Your task to perform on an android device: Do I have any events tomorrow? Image 0: 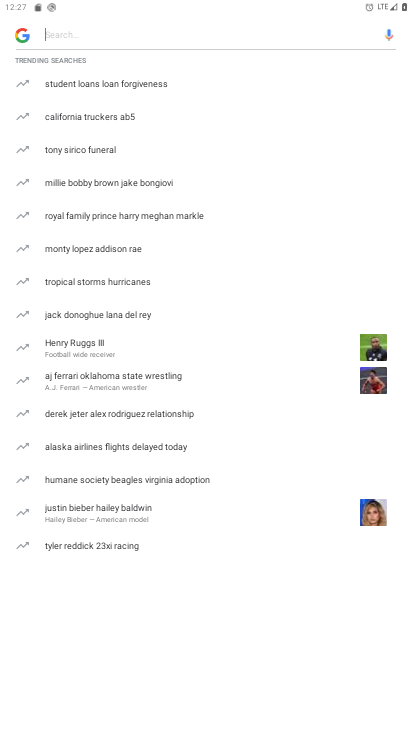
Step 0: press home button
Your task to perform on an android device: Do I have any events tomorrow? Image 1: 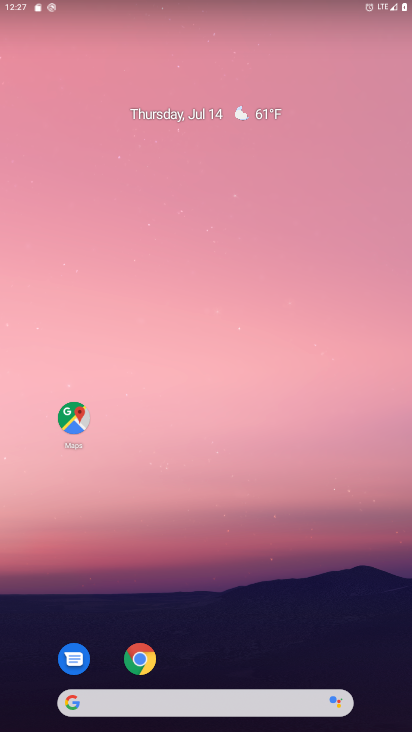
Step 1: drag from (215, 672) to (218, 95)
Your task to perform on an android device: Do I have any events tomorrow? Image 2: 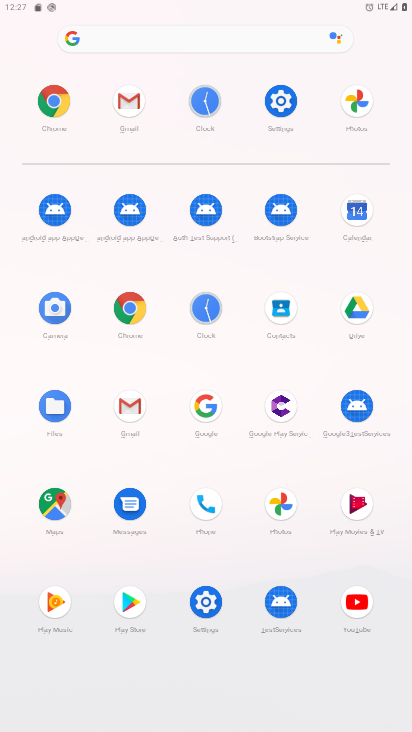
Step 2: click (357, 215)
Your task to perform on an android device: Do I have any events tomorrow? Image 3: 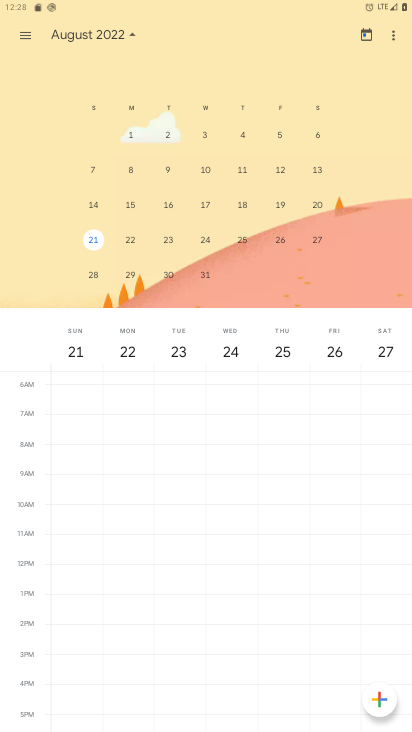
Step 3: click (124, 27)
Your task to perform on an android device: Do I have any events tomorrow? Image 4: 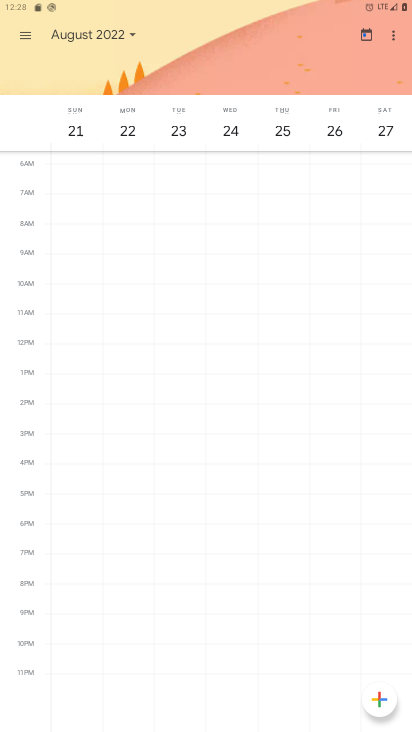
Step 4: click (131, 26)
Your task to perform on an android device: Do I have any events tomorrow? Image 5: 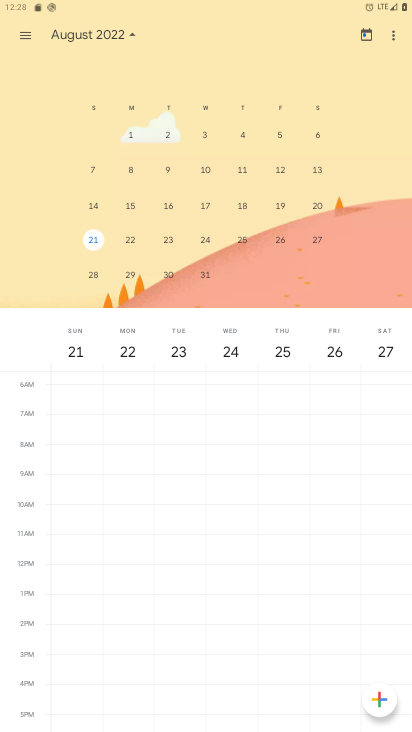
Step 5: drag from (108, 201) to (335, 203)
Your task to perform on an android device: Do I have any events tomorrow? Image 6: 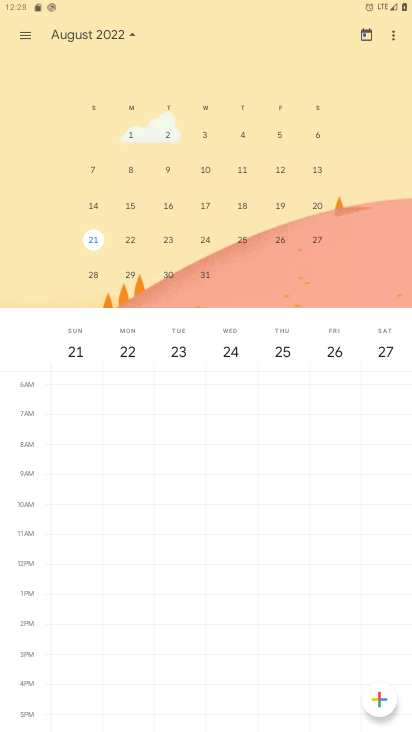
Step 6: drag from (102, 199) to (410, 238)
Your task to perform on an android device: Do I have any events tomorrow? Image 7: 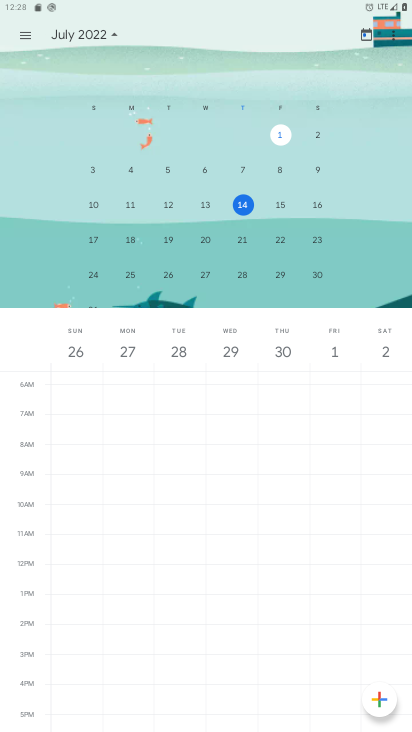
Step 7: click (279, 199)
Your task to perform on an android device: Do I have any events tomorrow? Image 8: 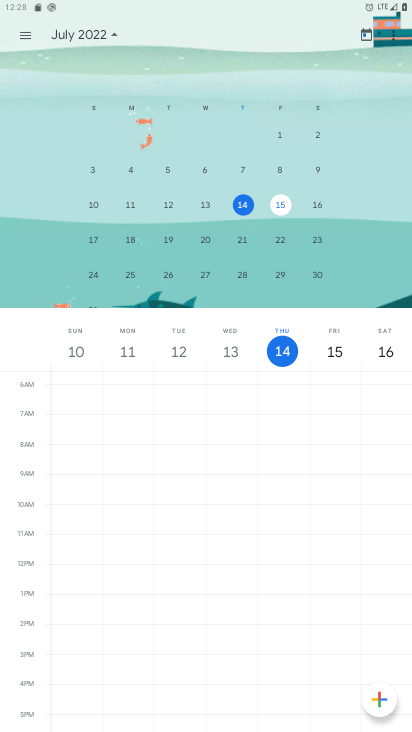
Step 8: click (279, 199)
Your task to perform on an android device: Do I have any events tomorrow? Image 9: 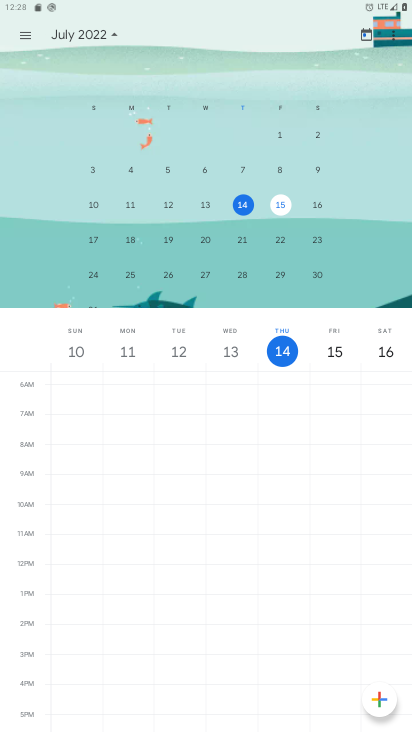
Step 9: click (280, 203)
Your task to perform on an android device: Do I have any events tomorrow? Image 10: 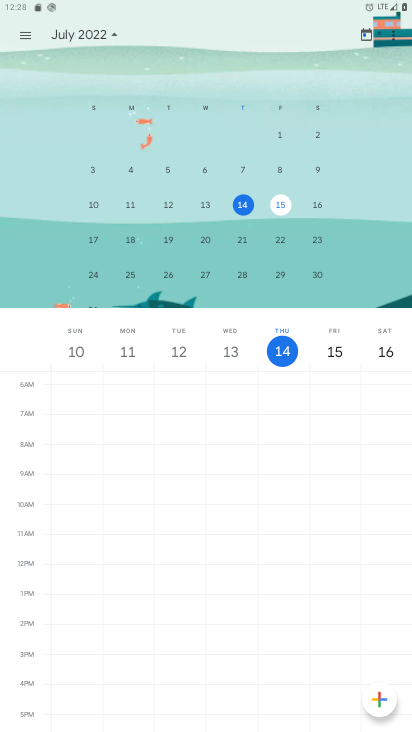
Step 10: click (111, 34)
Your task to perform on an android device: Do I have any events tomorrow? Image 11: 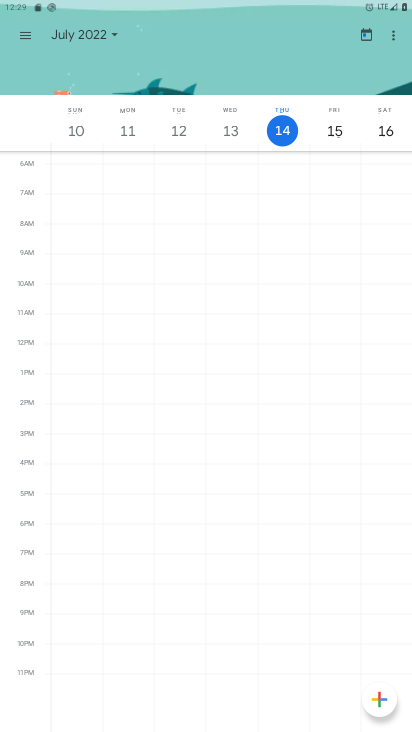
Step 11: click (327, 134)
Your task to perform on an android device: Do I have any events tomorrow? Image 12: 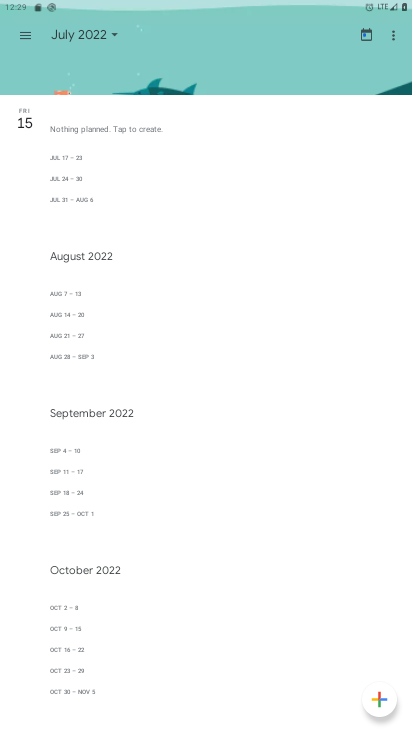
Step 12: click (36, 122)
Your task to perform on an android device: Do I have any events tomorrow? Image 13: 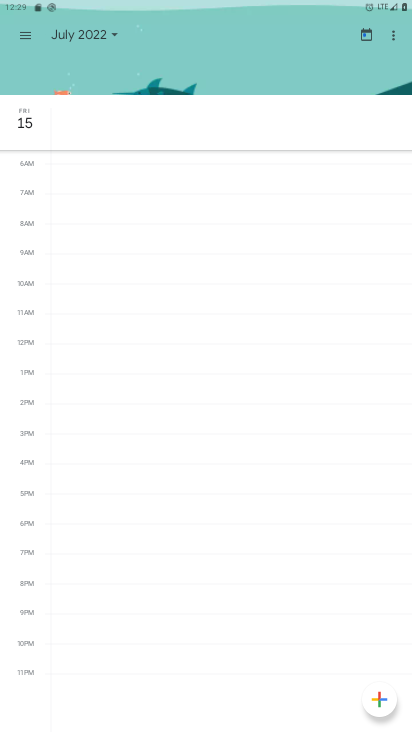
Step 13: task complete